Your task to perform on an android device: Go to privacy settings Image 0: 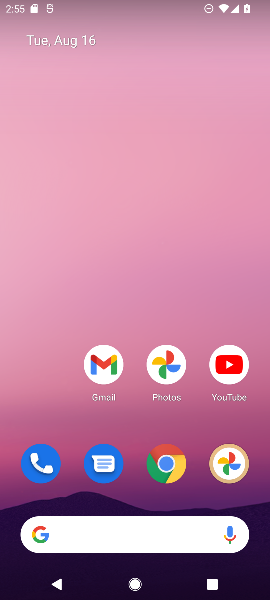
Step 0: drag from (123, 374) to (125, 0)
Your task to perform on an android device: Go to privacy settings Image 1: 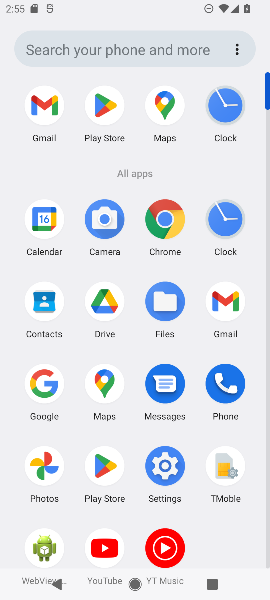
Step 1: click (172, 461)
Your task to perform on an android device: Go to privacy settings Image 2: 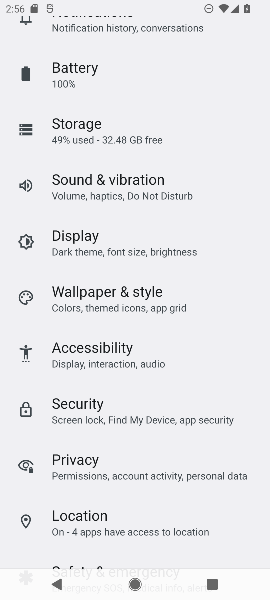
Step 2: click (62, 483)
Your task to perform on an android device: Go to privacy settings Image 3: 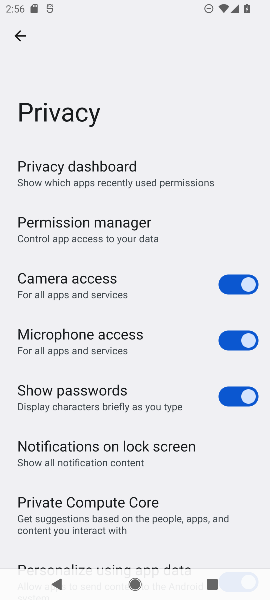
Step 3: task complete